Your task to perform on an android device: Open Wikipedia Image 0: 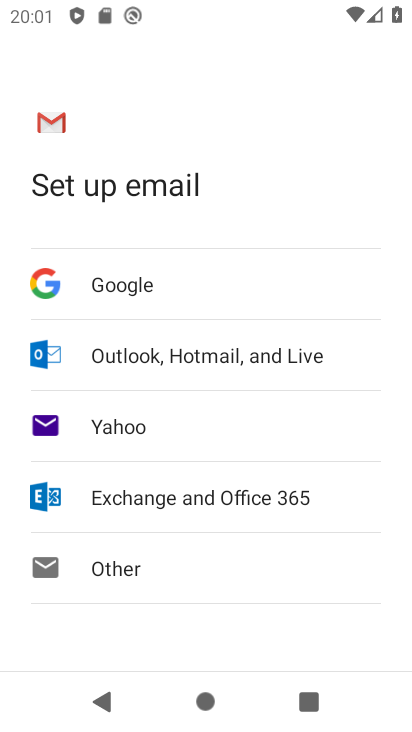
Step 0: press home button
Your task to perform on an android device: Open Wikipedia Image 1: 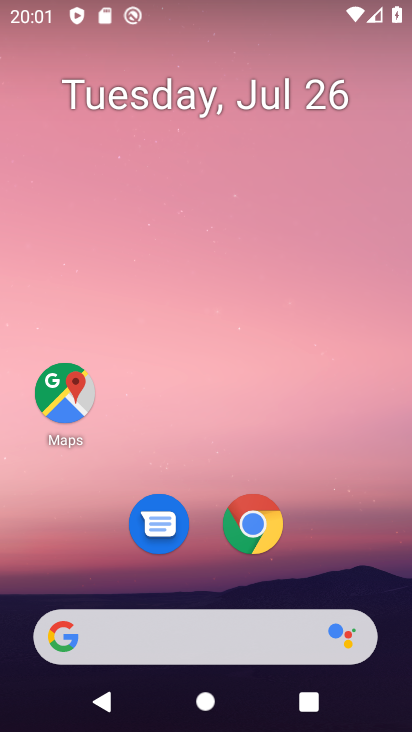
Step 1: click (257, 515)
Your task to perform on an android device: Open Wikipedia Image 2: 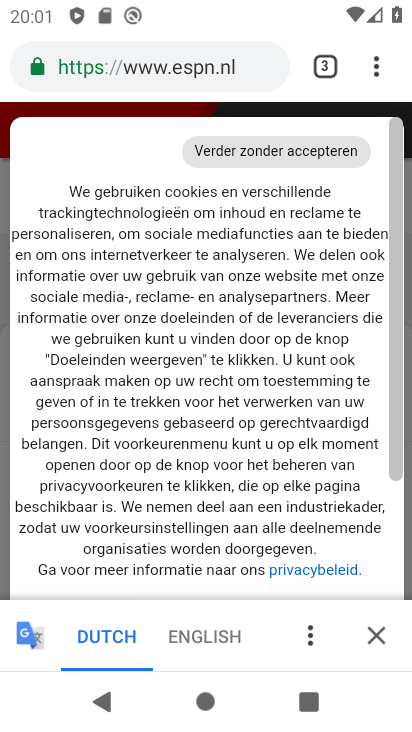
Step 2: drag from (374, 70) to (128, 136)
Your task to perform on an android device: Open Wikipedia Image 3: 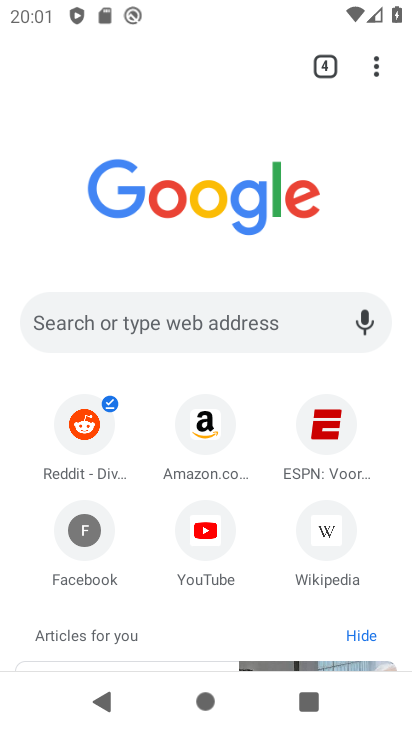
Step 3: click (330, 525)
Your task to perform on an android device: Open Wikipedia Image 4: 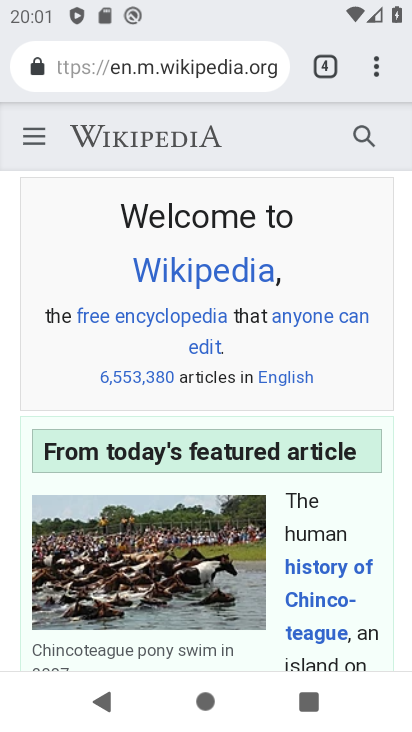
Step 4: task complete